Your task to perform on an android device: Go to location settings Image 0: 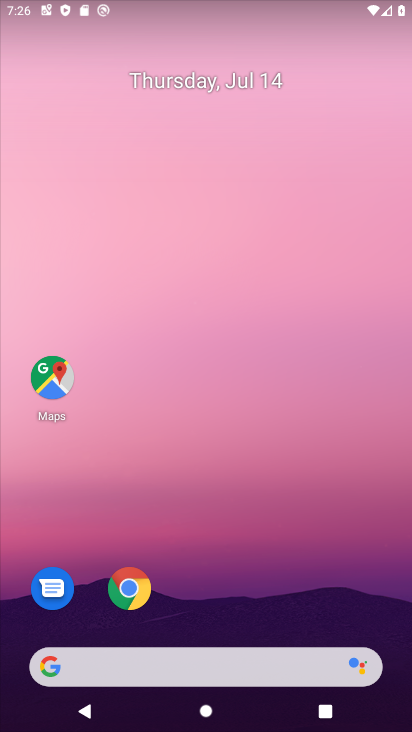
Step 0: drag from (341, 612) to (188, 9)
Your task to perform on an android device: Go to location settings Image 1: 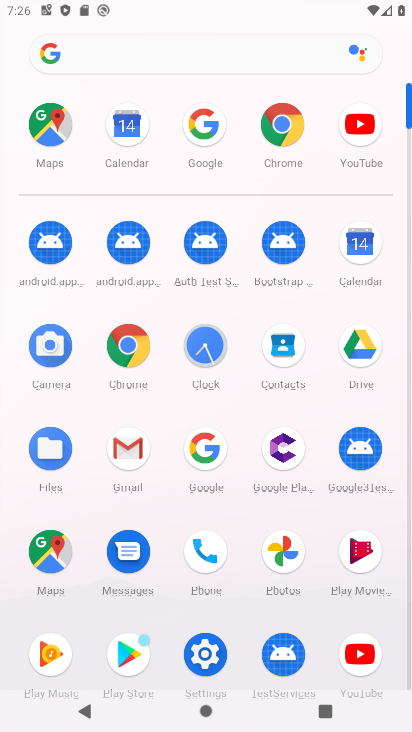
Step 1: click (209, 647)
Your task to perform on an android device: Go to location settings Image 2: 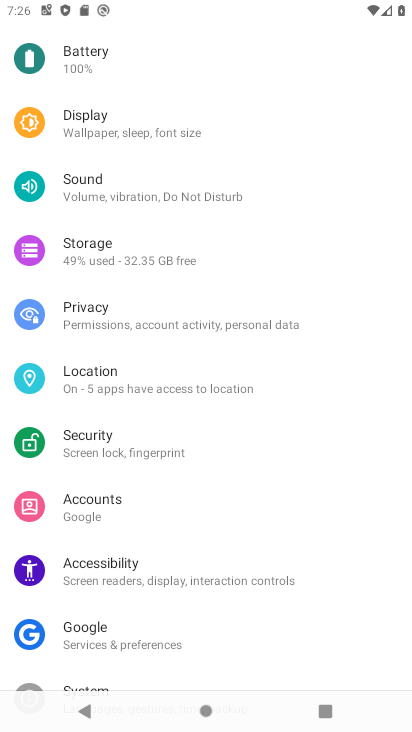
Step 2: click (97, 379)
Your task to perform on an android device: Go to location settings Image 3: 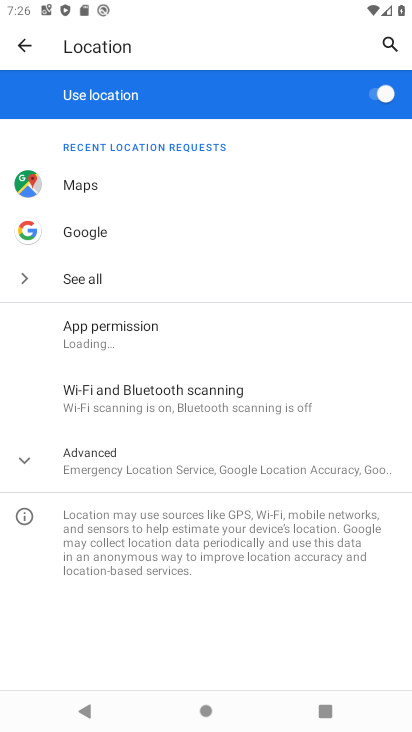
Step 3: task complete